Your task to perform on an android device: turn notification dots on Image 0: 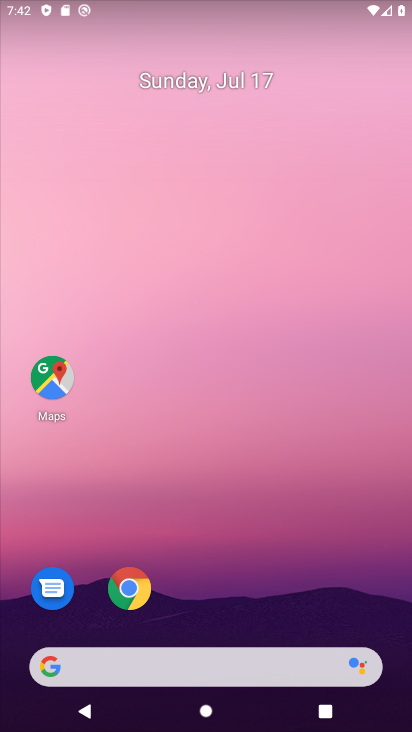
Step 0: drag from (321, 625) to (267, 222)
Your task to perform on an android device: turn notification dots on Image 1: 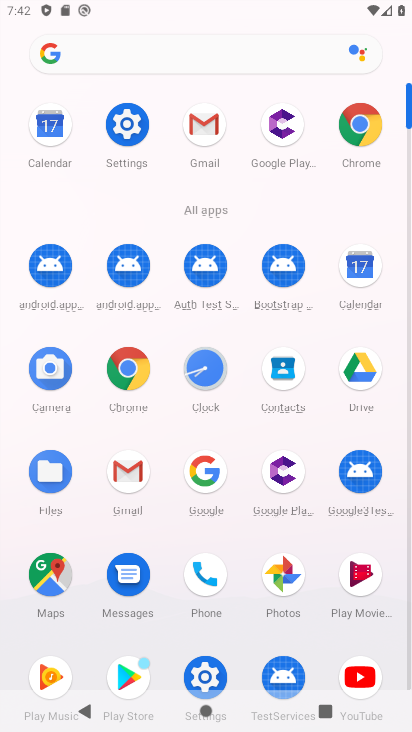
Step 1: click (204, 658)
Your task to perform on an android device: turn notification dots on Image 2: 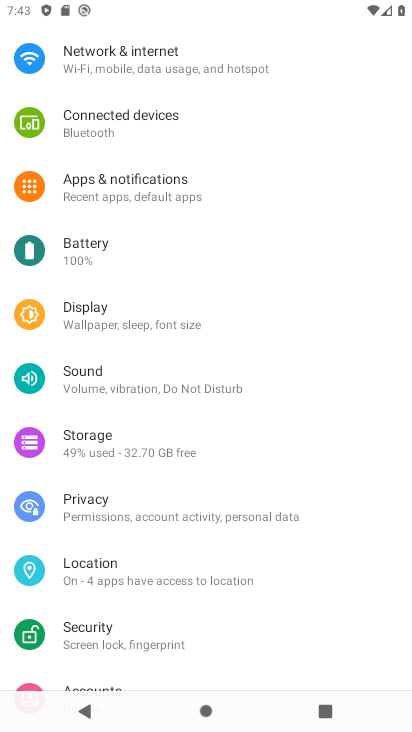
Step 2: click (126, 178)
Your task to perform on an android device: turn notification dots on Image 3: 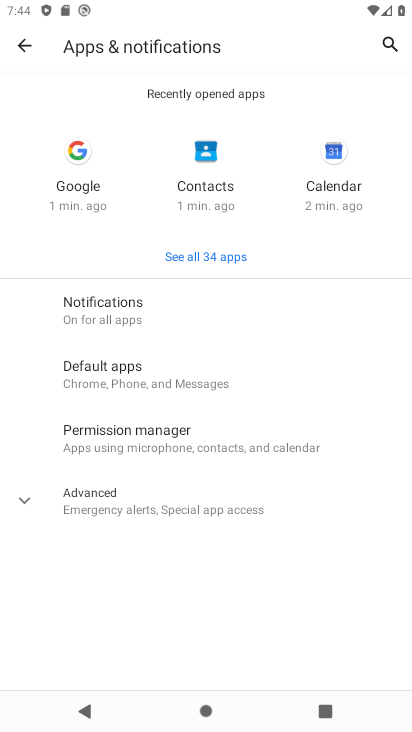
Step 3: click (111, 493)
Your task to perform on an android device: turn notification dots on Image 4: 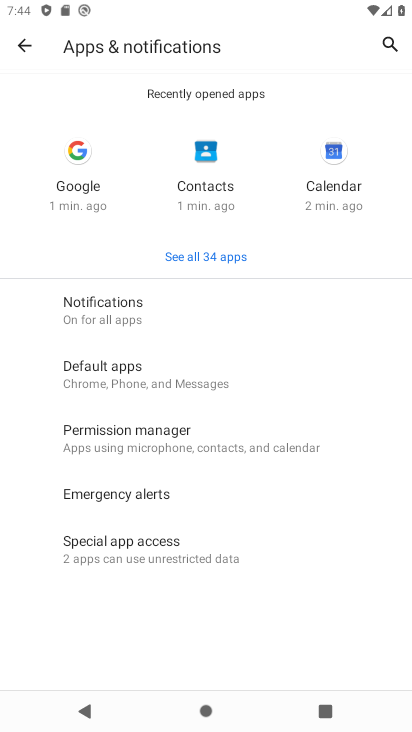
Step 4: click (133, 317)
Your task to perform on an android device: turn notification dots on Image 5: 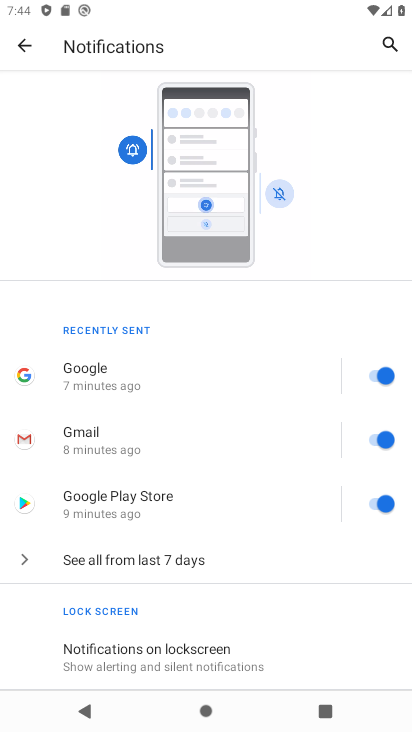
Step 5: click (202, 642)
Your task to perform on an android device: turn notification dots on Image 6: 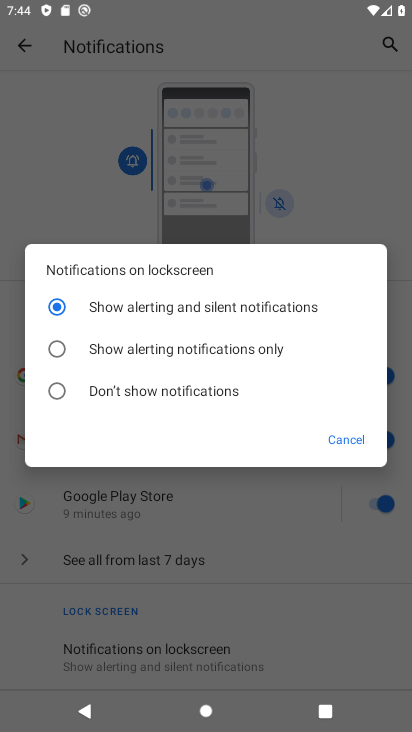
Step 6: click (337, 432)
Your task to perform on an android device: turn notification dots on Image 7: 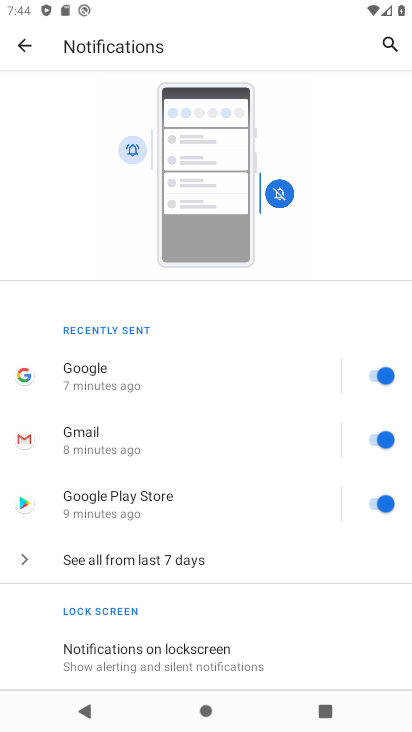
Step 7: drag from (259, 610) to (291, 163)
Your task to perform on an android device: turn notification dots on Image 8: 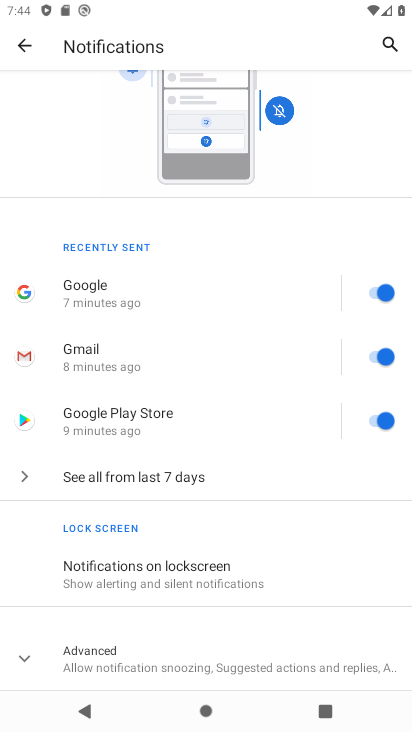
Step 8: click (247, 621)
Your task to perform on an android device: turn notification dots on Image 9: 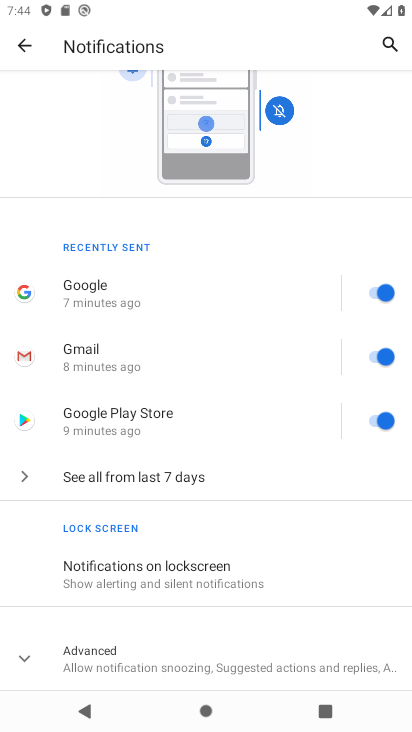
Step 9: click (150, 673)
Your task to perform on an android device: turn notification dots on Image 10: 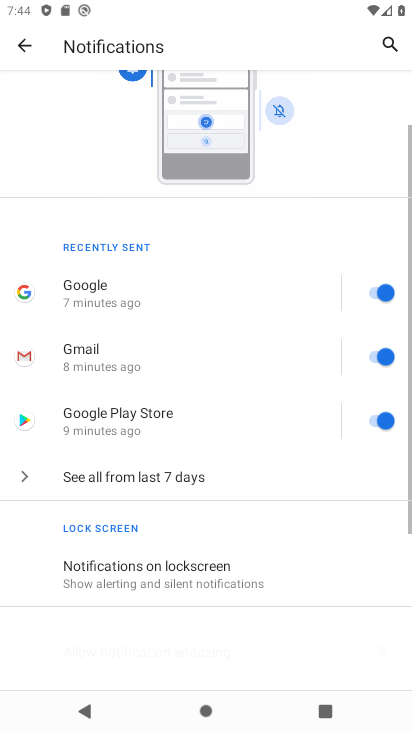
Step 10: drag from (208, 655) to (247, 512)
Your task to perform on an android device: turn notification dots on Image 11: 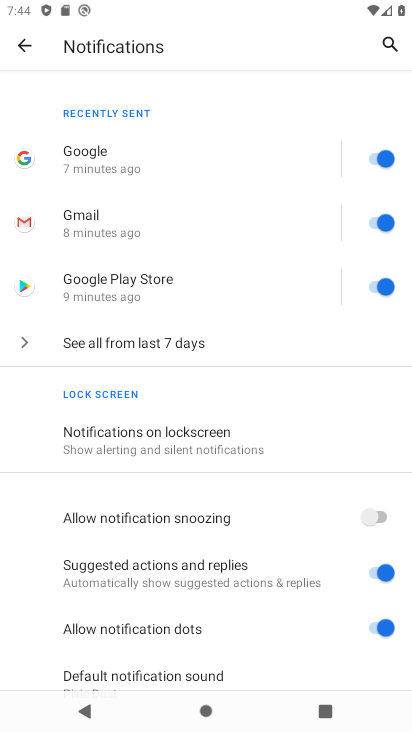
Step 11: click (349, 628)
Your task to perform on an android device: turn notification dots on Image 12: 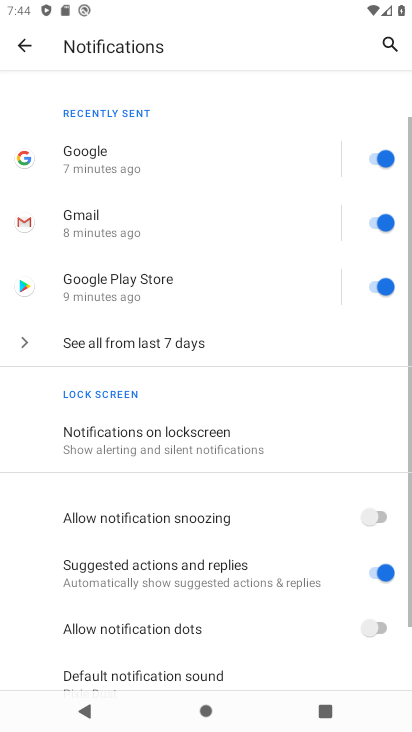
Step 12: click (349, 628)
Your task to perform on an android device: turn notification dots on Image 13: 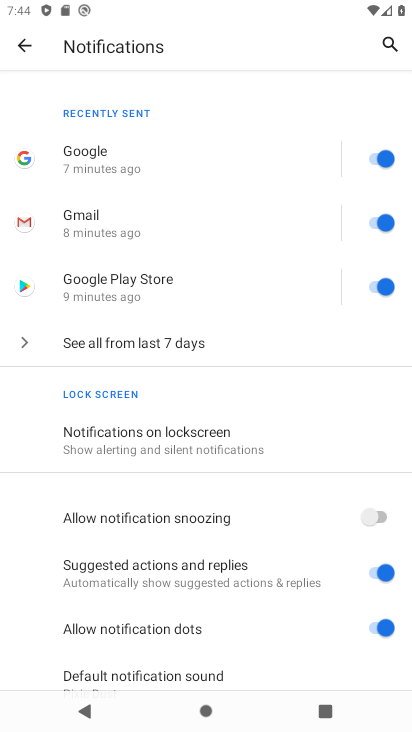
Step 13: task complete